Your task to perform on an android device: Search for vegetarian restaurants on Maps Image 0: 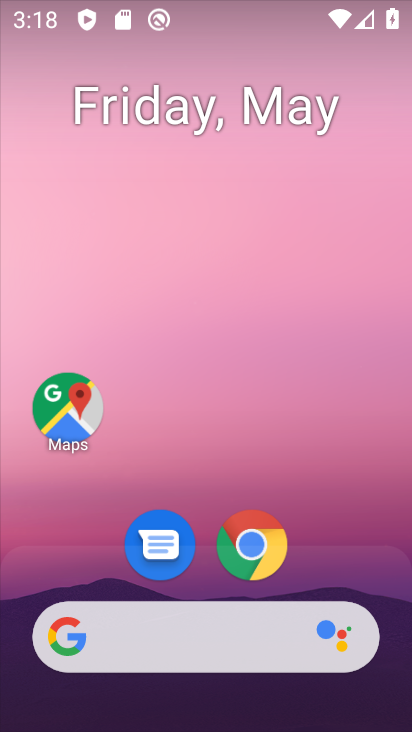
Step 0: click (63, 411)
Your task to perform on an android device: Search for vegetarian restaurants on Maps Image 1: 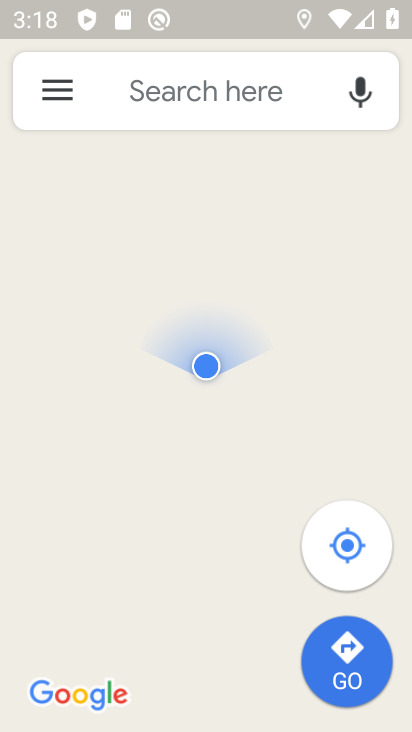
Step 1: click (201, 98)
Your task to perform on an android device: Search for vegetarian restaurants on Maps Image 2: 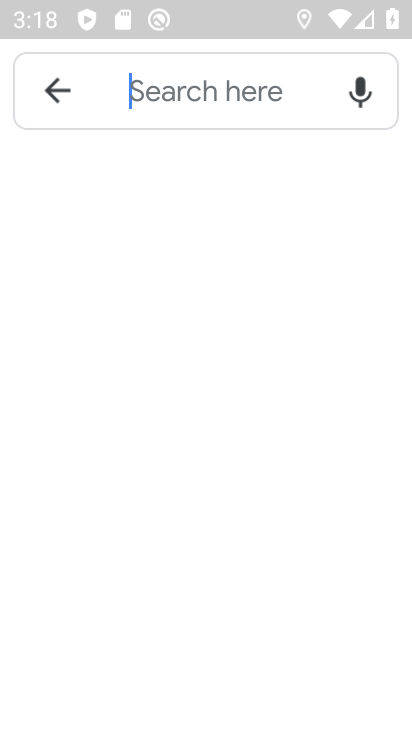
Step 2: click (202, 88)
Your task to perform on an android device: Search for vegetarian restaurants on Maps Image 3: 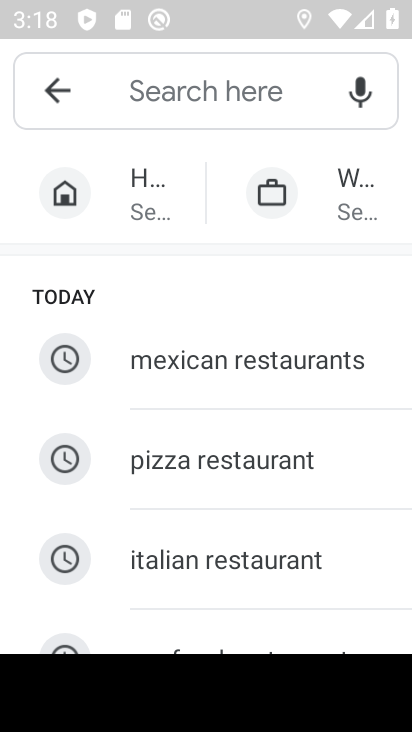
Step 3: drag from (293, 612) to (373, 215)
Your task to perform on an android device: Search for vegetarian restaurants on Maps Image 4: 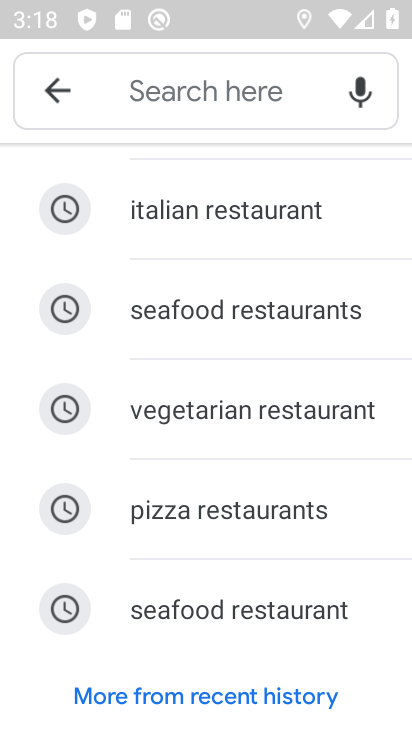
Step 4: click (260, 407)
Your task to perform on an android device: Search for vegetarian restaurants on Maps Image 5: 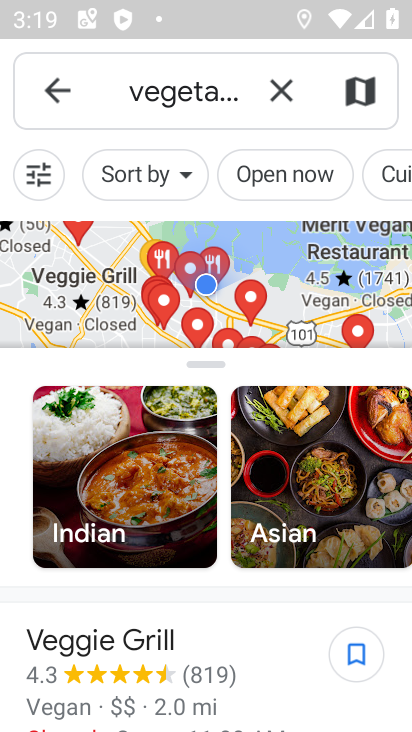
Step 5: task complete